Your task to perform on an android device: Open Yahoo.com Image 0: 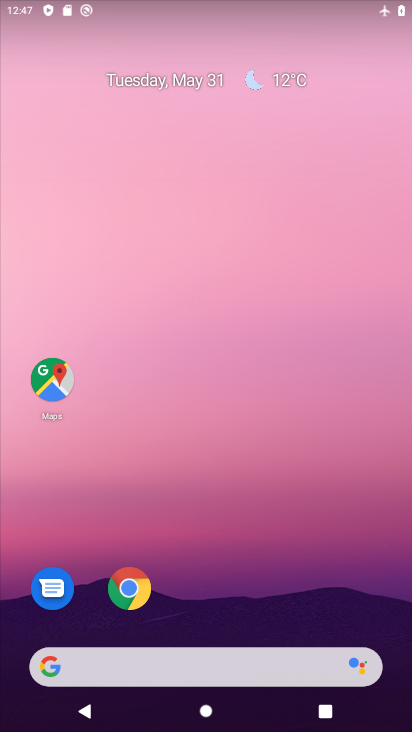
Step 0: click (125, 595)
Your task to perform on an android device: Open Yahoo.com Image 1: 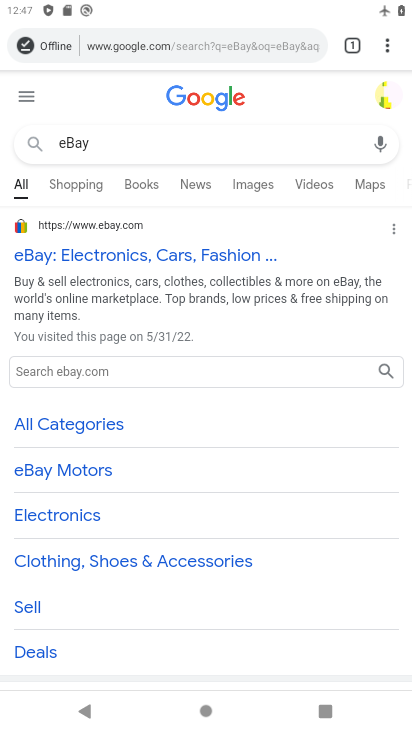
Step 1: click (318, 41)
Your task to perform on an android device: Open Yahoo.com Image 2: 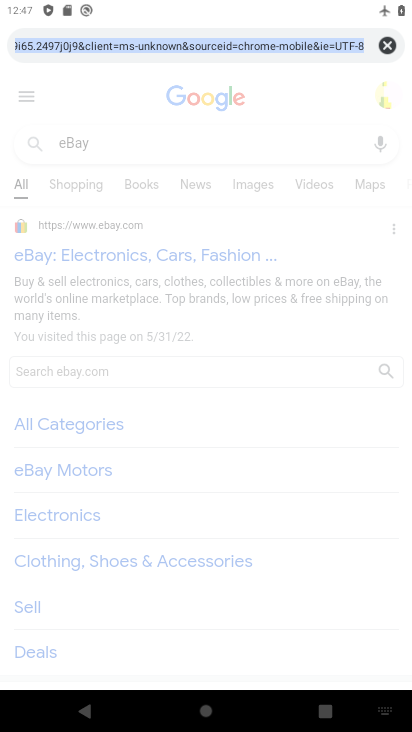
Step 2: click (387, 48)
Your task to perform on an android device: Open Yahoo.com Image 3: 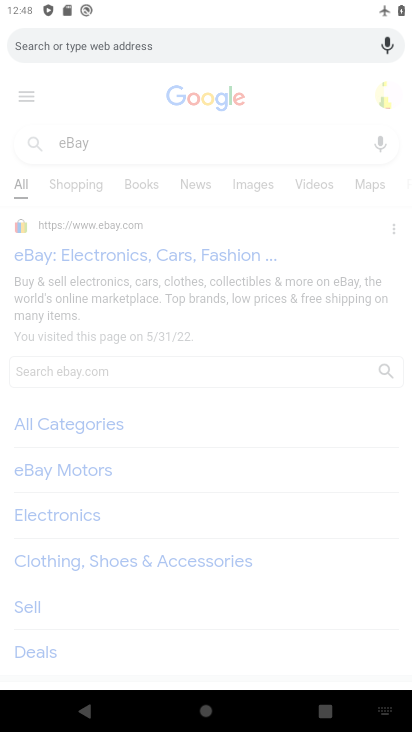
Step 3: type " Yahoo.com"
Your task to perform on an android device: Open Yahoo.com Image 4: 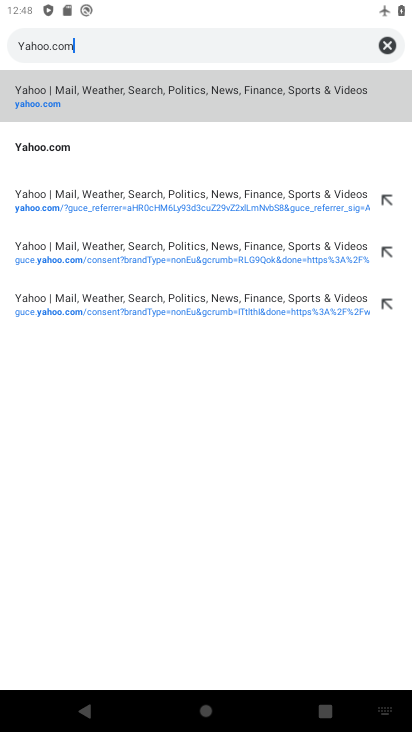
Step 4: click (50, 136)
Your task to perform on an android device: Open Yahoo.com Image 5: 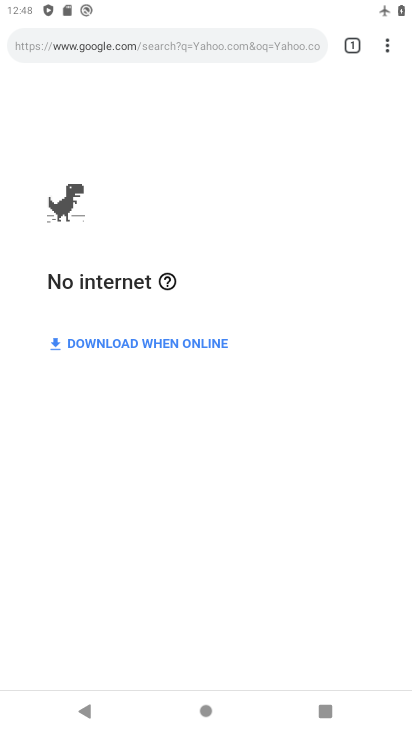
Step 5: task complete